Your task to perform on an android device: Go to network settings Image 0: 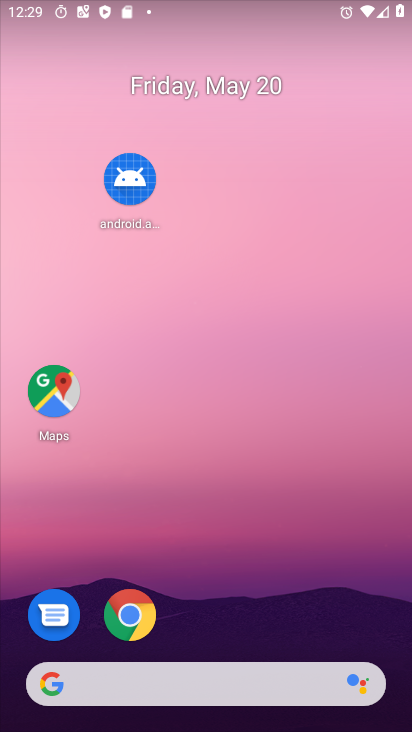
Step 0: drag from (338, 636) to (304, 268)
Your task to perform on an android device: Go to network settings Image 1: 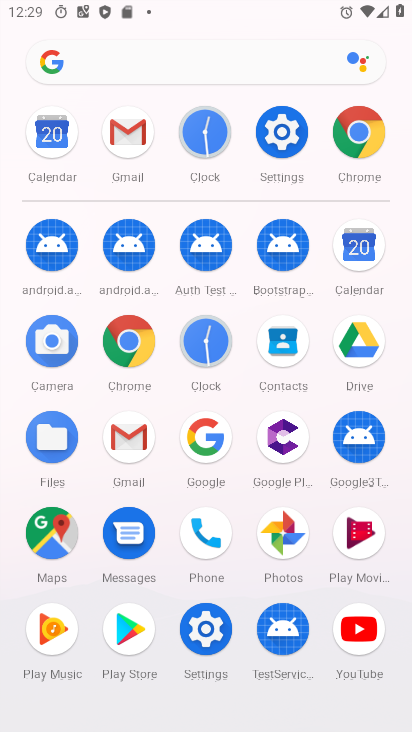
Step 1: click (211, 636)
Your task to perform on an android device: Go to network settings Image 2: 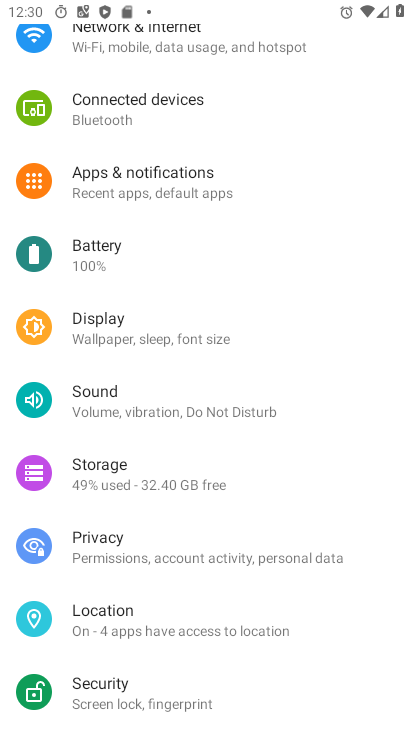
Step 2: drag from (233, 271) to (253, 544)
Your task to perform on an android device: Go to network settings Image 3: 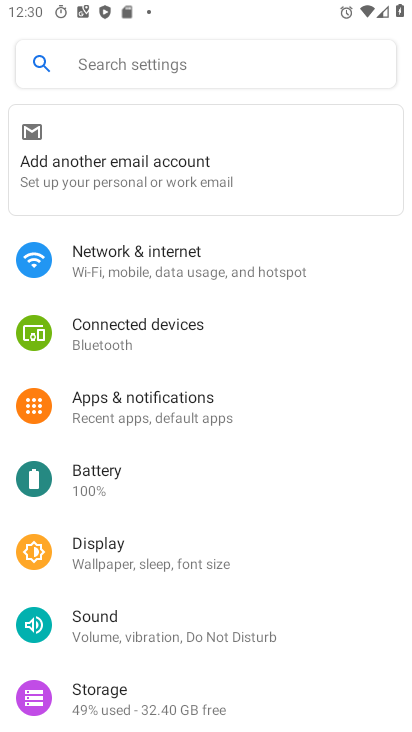
Step 3: click (159, 262)
Your task to perform on an android device: Go to network settings Image 4: 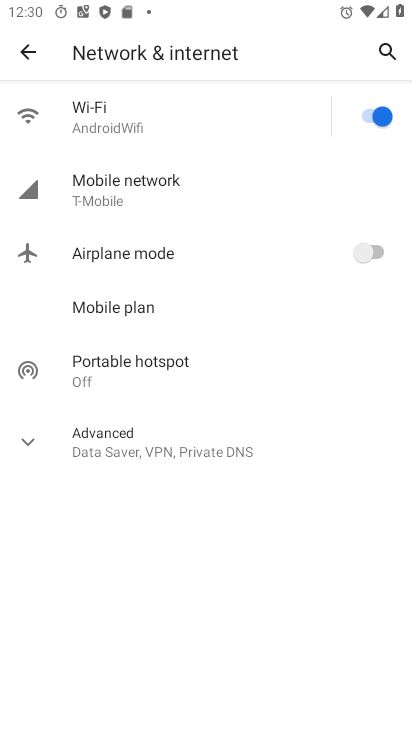
Step 4: task complete